Your task to perform on an android device: change alarm snooze length Image 0: 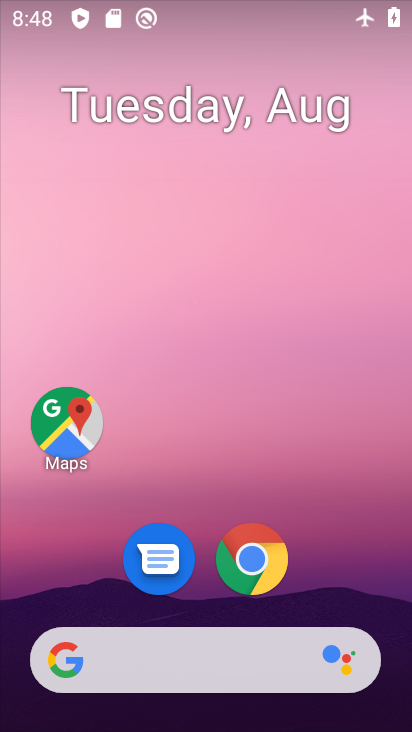
Step 0: drag from (338, 582) to (346, 51)
Your task to perform on an android device: change alarm snooze length Image 1: 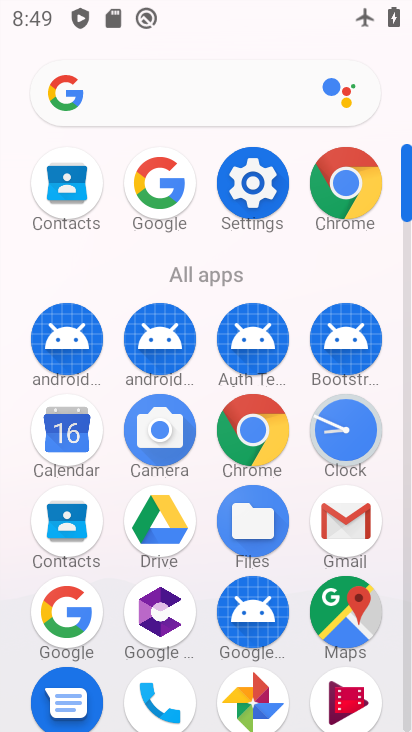
Step 1: click (346, 432)
Your task to perform on an android device: change alarm snooze length Image 2: 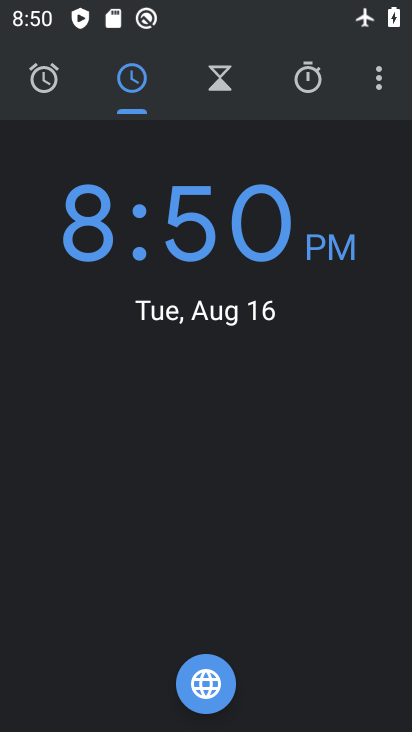
Step 2: click (375, 78)
Your task to perform on an android device: change alarm snooze length Image 3: 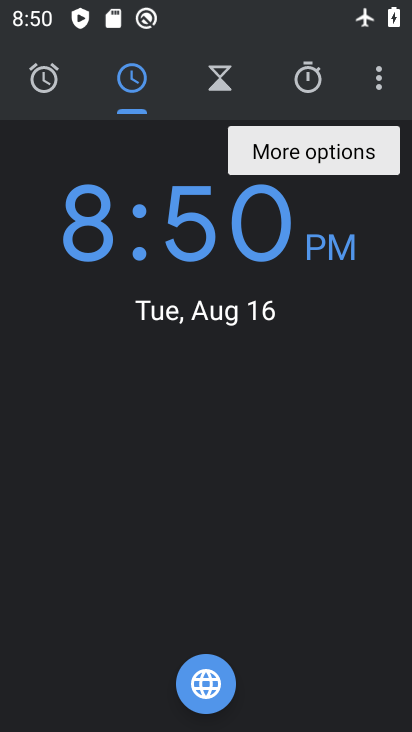
Step 3: click (375, 81)
Your task to perform on an android device: change alarm snooze length Image 4: 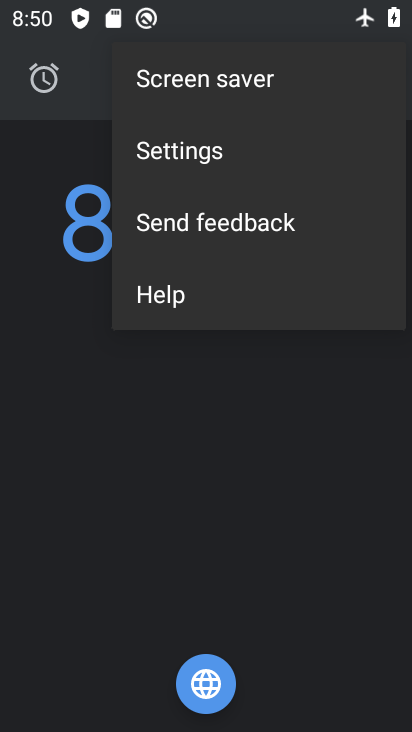
Step 4: click (189, 156)
Your task to perform on an android device: change alarm snooze length Image 5: 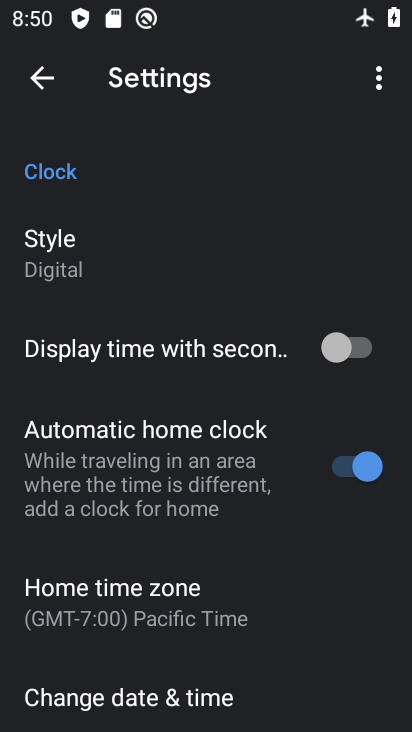
Step 5: drag from (153, 548) to (195, 134)
Your task to perform on an android device: change alarm snooze length Image 6: 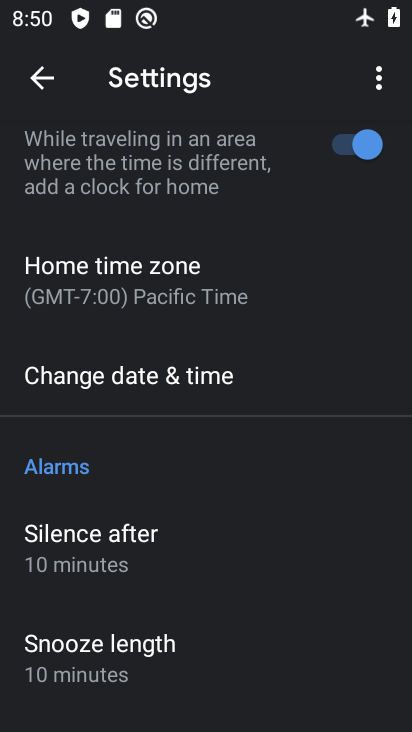
Step 6: click (131, 647)
Your task to perform on an android device: change alarm snooze length Image 7: 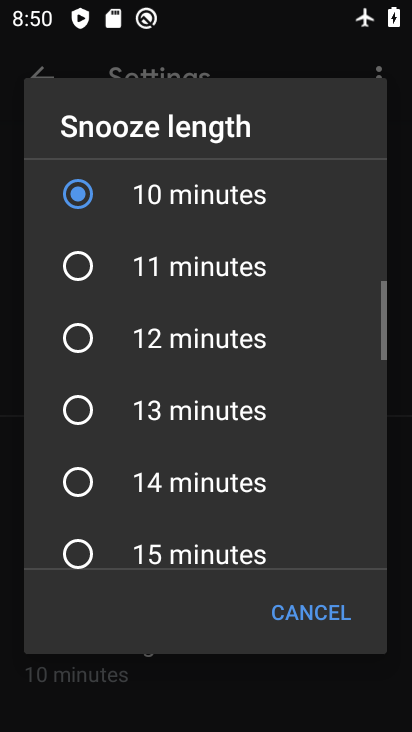
Step 7: click (178, 273)
Your task to perform on an android device: change alarm snooze length Image 8: 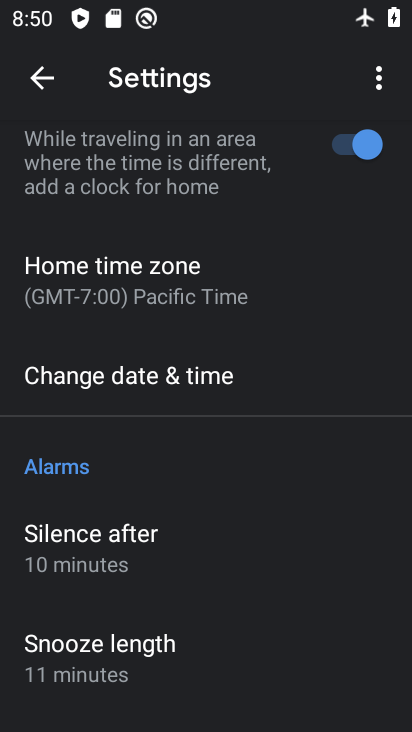
Step 8: task complete